Your task to perform on an android device: Open wifi settings Image 0: 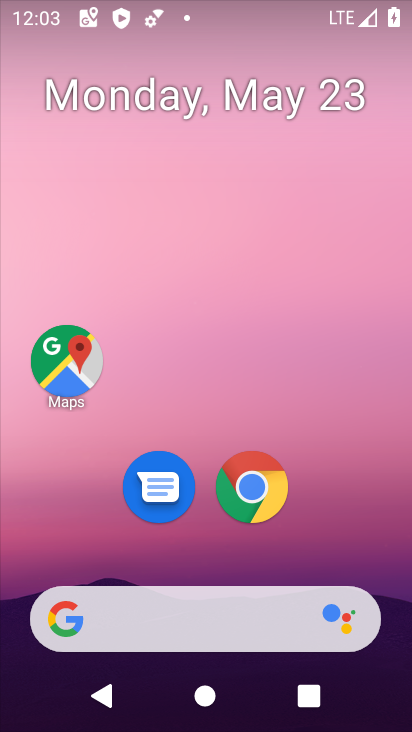
Step 0: drag from (216, 400) to (233, 51)
Your task to perform on an android device: Open wifi settings Image 1: 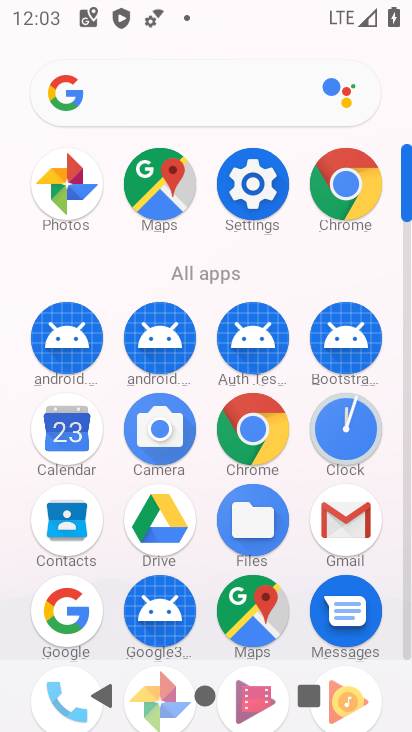
Step 1: click (251, 167)
Your task to perform on an android device: Open wifi settings Image 2: 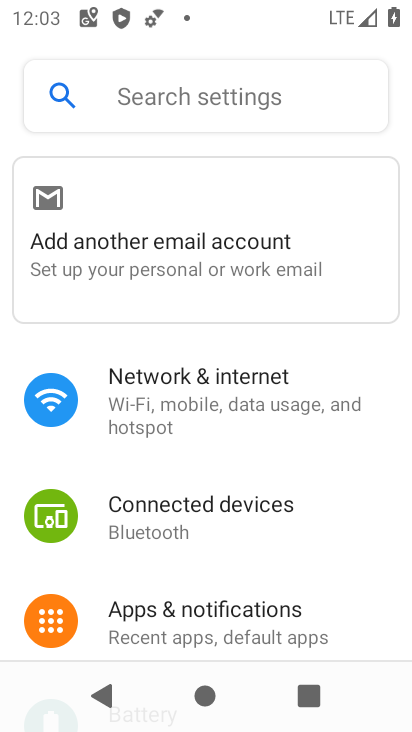
Step 2: click (182, 374)
Your task to perform on an android device: Open wifi settings Image 3: 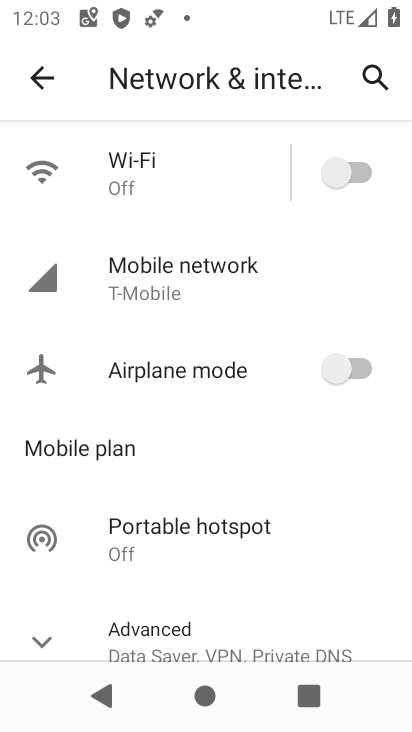
Step 3: click (174, 177)
Your task to perform on an android device: Open wifi settings Image 4: 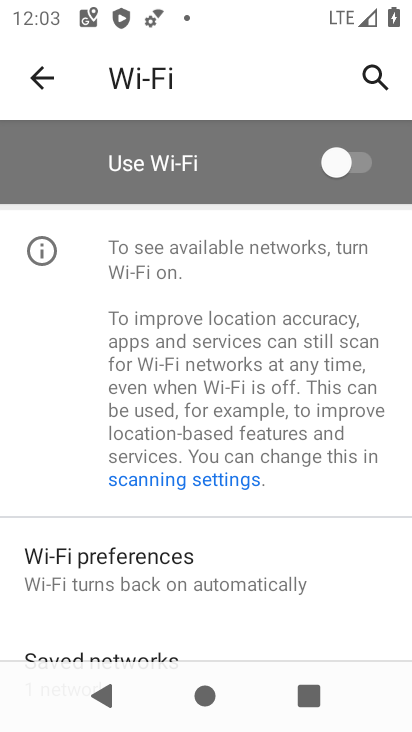
Step 4: task complete